Your task to perform on an android device: Open the calendar and show me this week's events? Image 0: 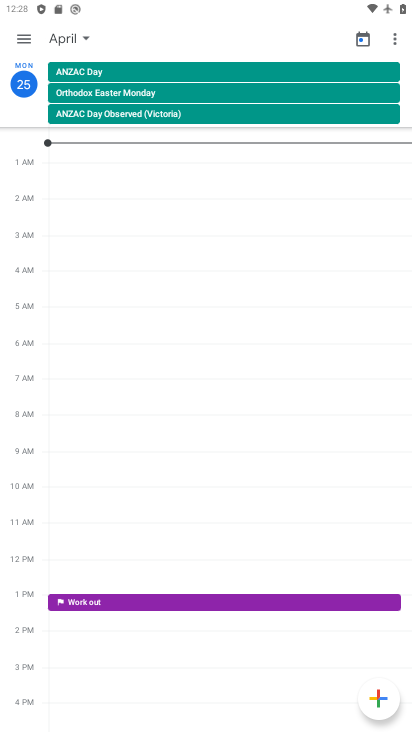
Step 0: click (19, 45)
Your task to perform on an android device: Open the calendar and show me this week's events? Image 1: 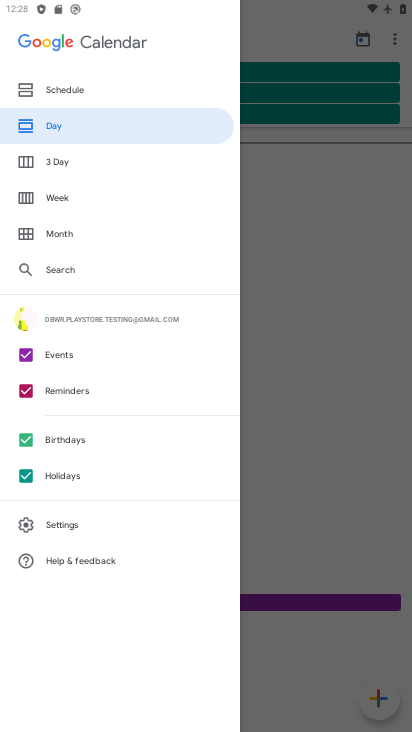
Step 1: click (47, 231)
Your task to perform on an android device: Open the calendar and show me this week's events? Image 2: 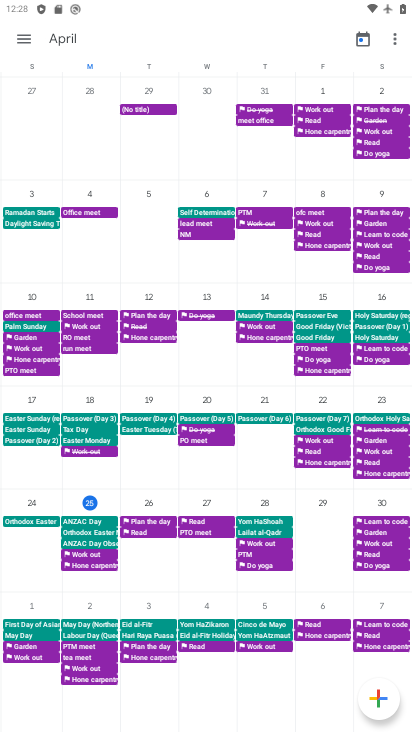
Step 2: click (24, 42)
Your task to perform on an android device: Open the calendar and show me this week's events? Image 3: 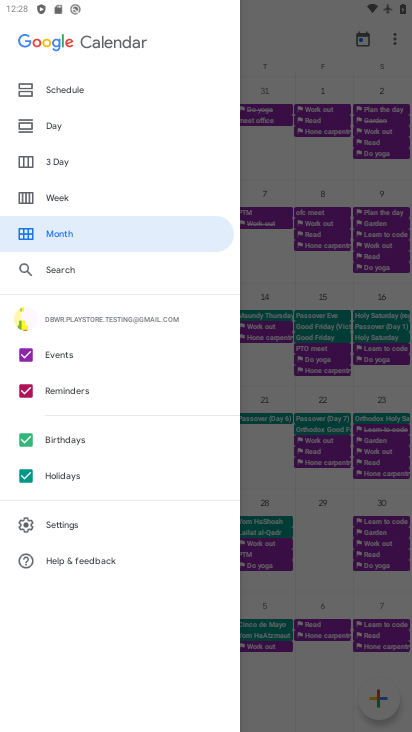
Step 3: click (41, 210)
Your task to perform on an android device: Open the calendar and show me this week's events? Image 4: 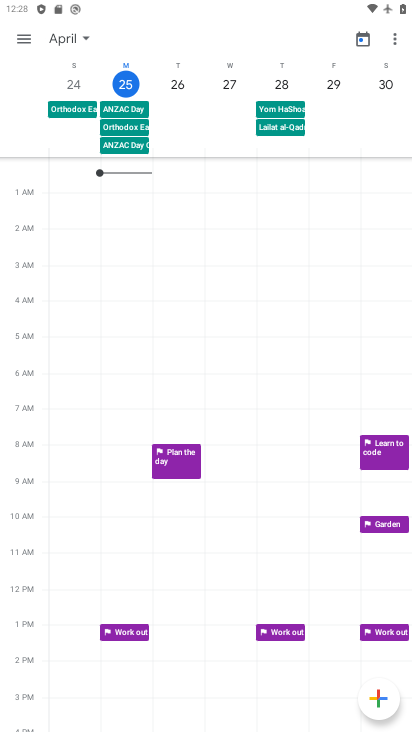
Step 4: task complete